Your task to perform on an android device: turn off location history Image 0: 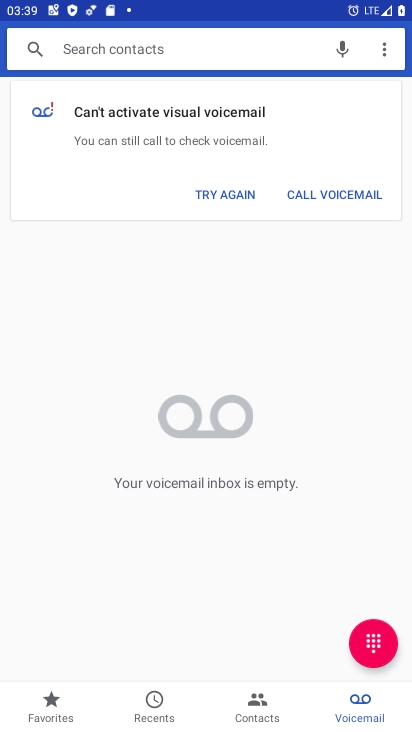
Step 0: press back button
Your task to perform on an android device: turn off location history Image 1: 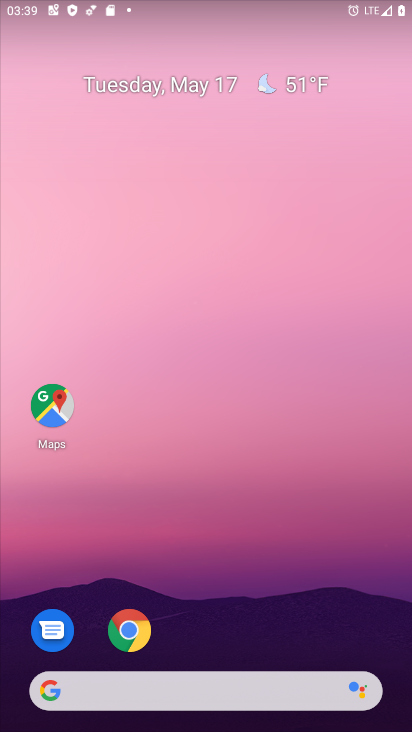
Step 1: drag from (237, 607) to (277, 80)
Your task to perform on an android device: turn off location history Image 2: 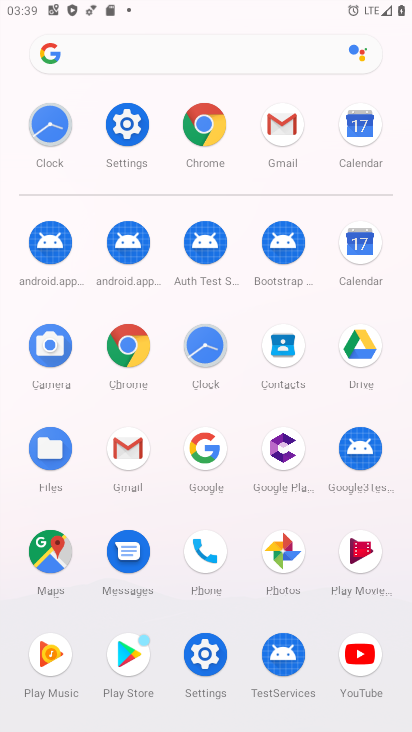
Step 2: click (119, 120)
Your task to perform on an android device: turn off location history Image 3: 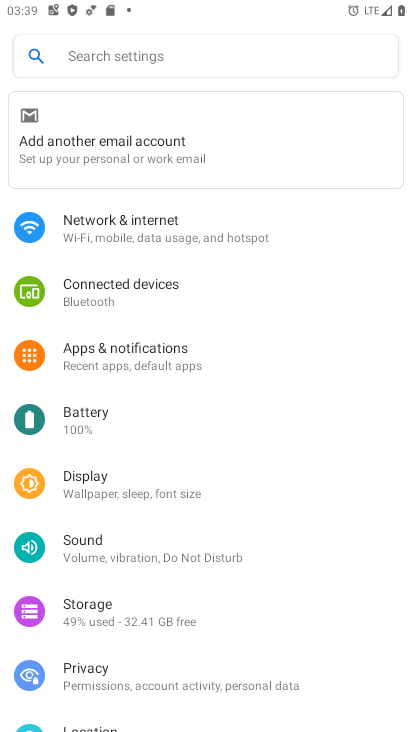
Step 3: drag from (129, 649) to (245, 203)
Your task to perform on an android device: turn off location history Image 4: 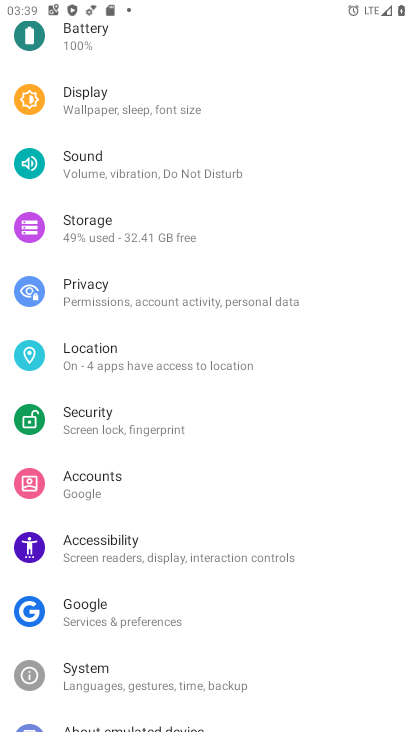
Step 4: click (97, 342)
Your task to perform on an android device: turn off location history Image 5: 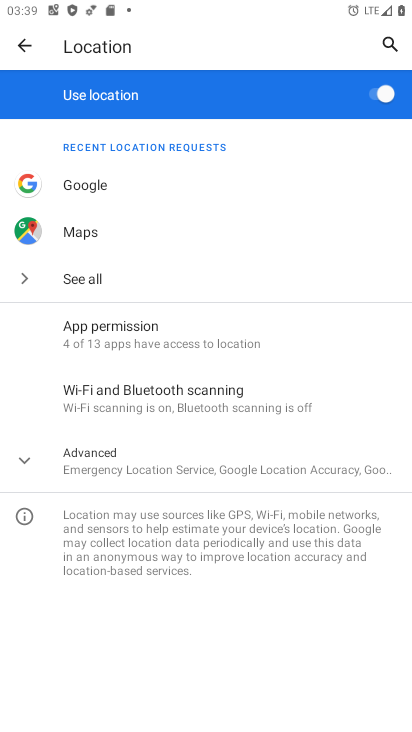
Step 5: click (142, 466)
Your task to perform on an android device: turn off location history Image 6: 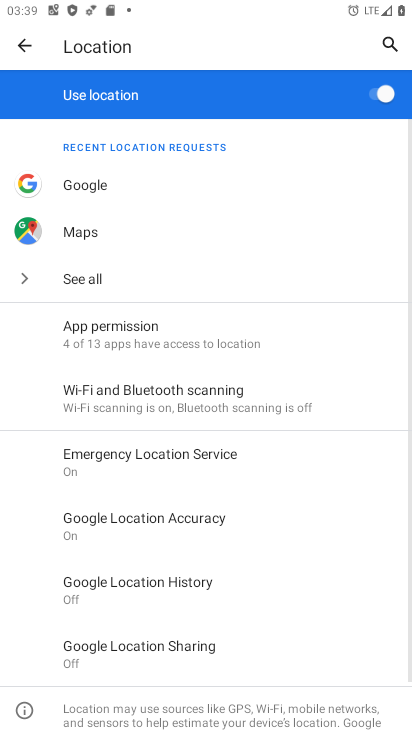
Step 6: click (152, 588)
Your task to perform on an android device: turn off location history Image 7: 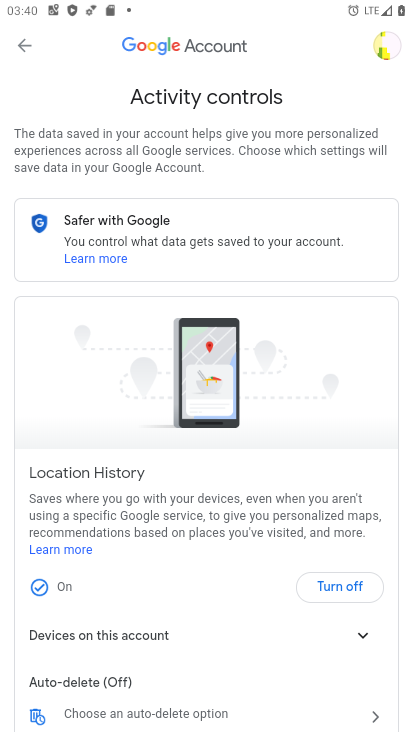
Step 7: click (398, 580)
Your task to perform on an android device: turn off location history Image 8: 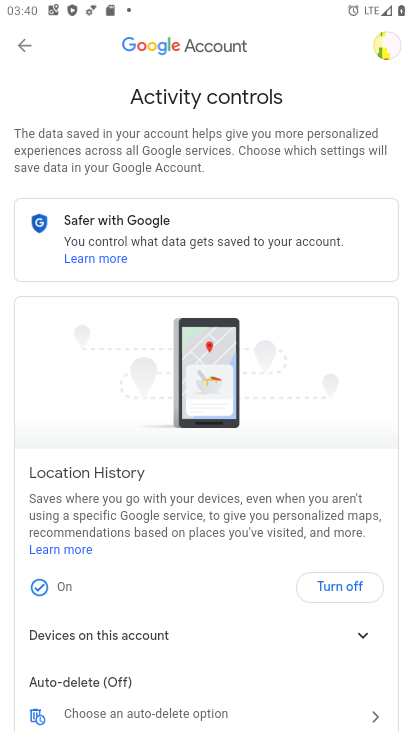
Step 8: click (337, 578)
Your task to perform on an android device: turn off location history Image 9: 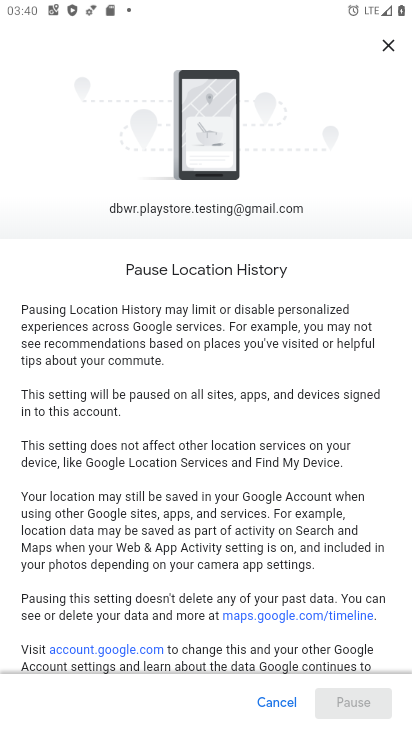
Step 9: drag from (264, 617) to (339, 90)
Your task to perform on an android device: turn off location history Image 10: 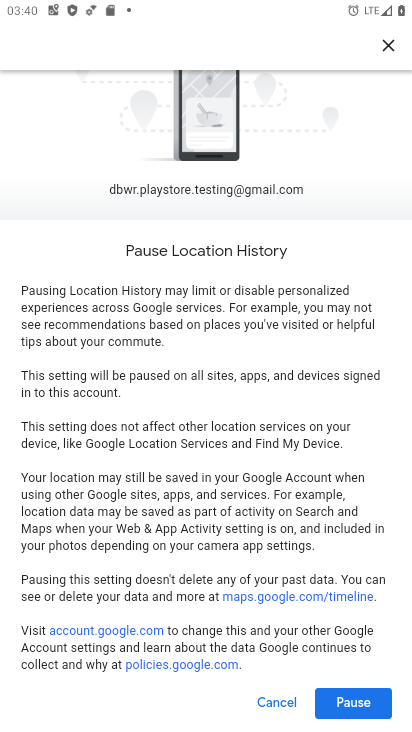
Step 10: click (360, 707)
Your task to perform on an android device: turn off location history Image 11: 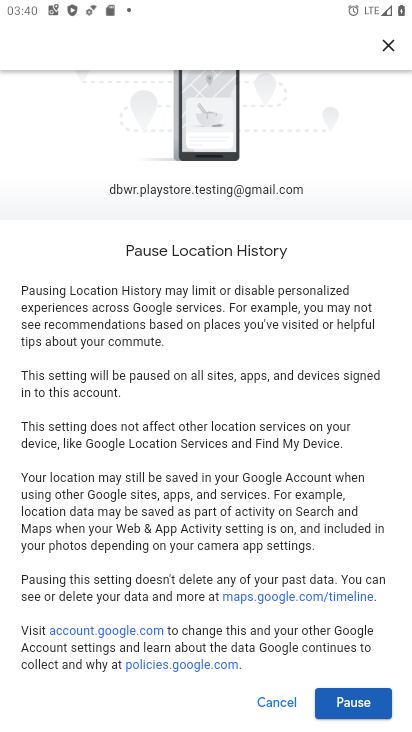
Step 11: click (352, 708)
Your task to perform on an android device: turn off location history Image 12: 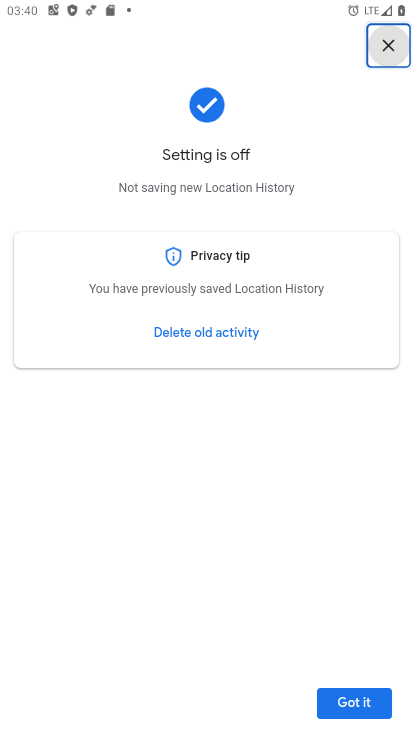
Step 12: task complete